Your task to perform on an android device: change the clock display to digital Image 0: 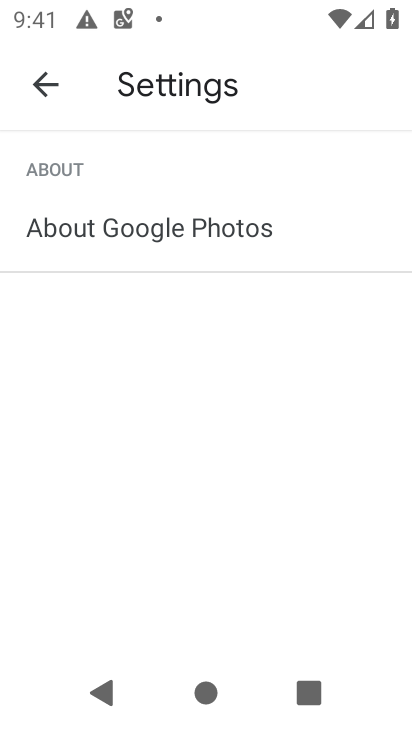
Step 0: press home button
Your task to perform on an android device: change the clock display to digital Image 1: 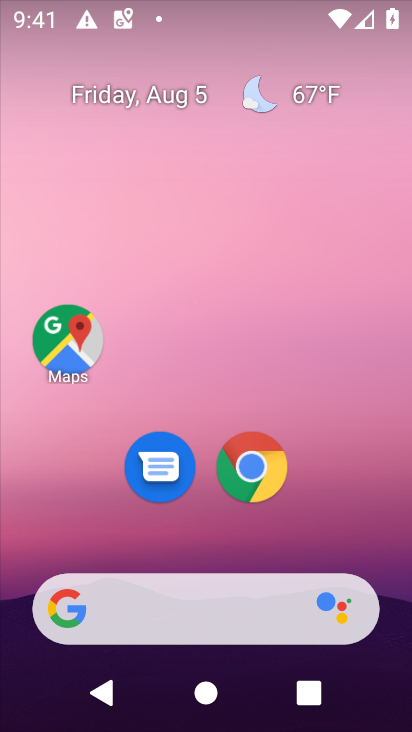
Step 1: drag from (230, 556) to (329, 9)
Your task to perform on an android device: change the clock display to digital Image 2: 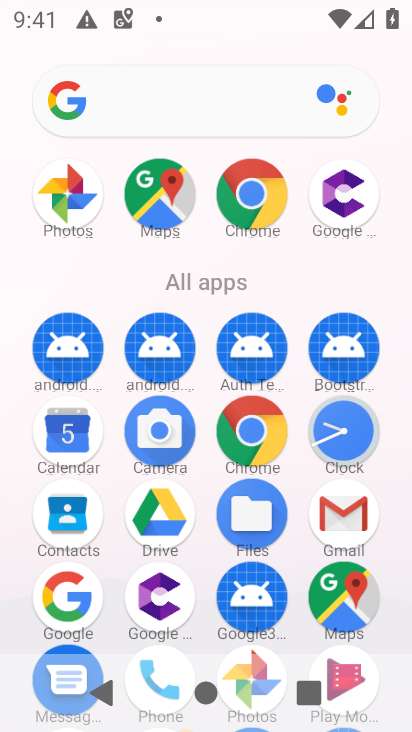
Step 2: click (326, 434)
Your task to perform on an android device: change the clock display to digital Image 3: 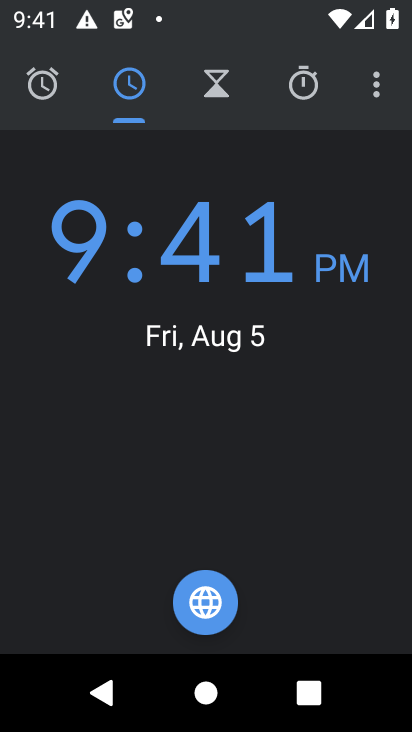
Step 3: click (378, 87)
Your task to perform on an android device: change the clock display to digital Image 4: 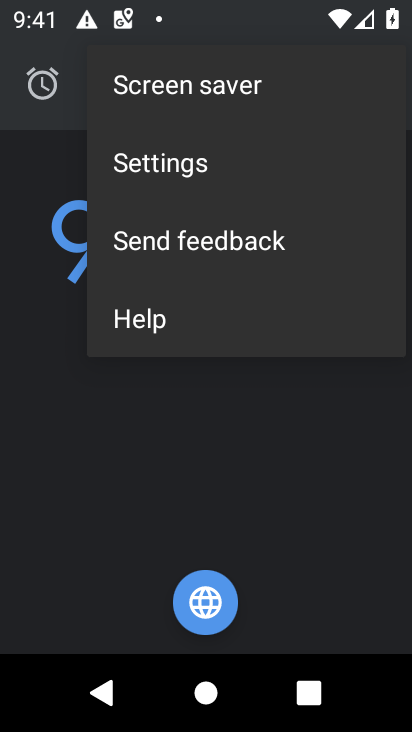
Step 4: click (142, 164)
Your task to perform on an android device: change the clock display to digital Image 5: 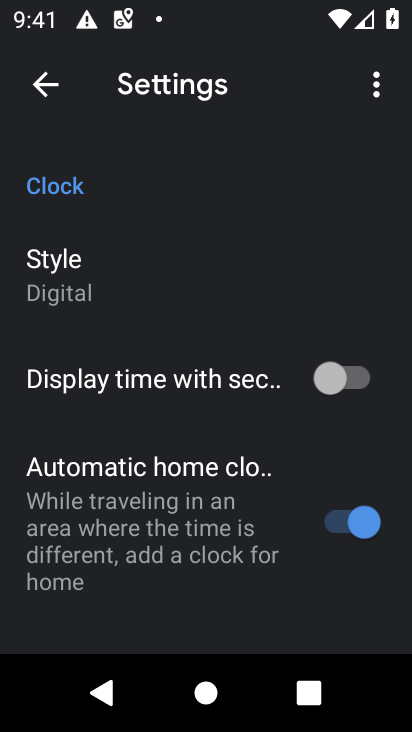
Step 5: task complete